Your task to perform on an android device: set default search engine in the chrome app Image 0: 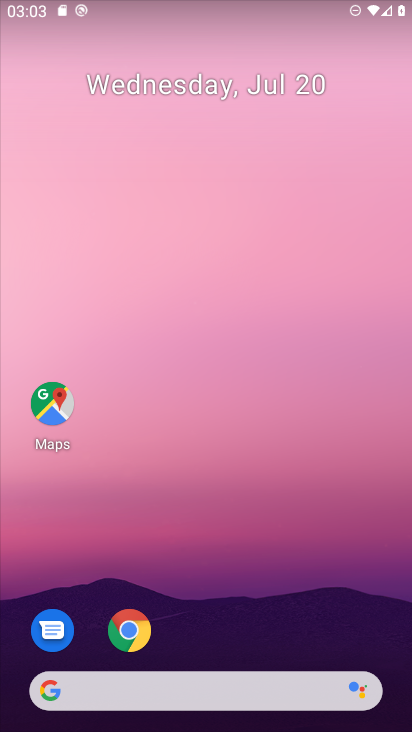
Step 0: drag from (374, 613) to (395, 134)
Your task to perform on an android device: set default search engine in the chrome app Image 1: 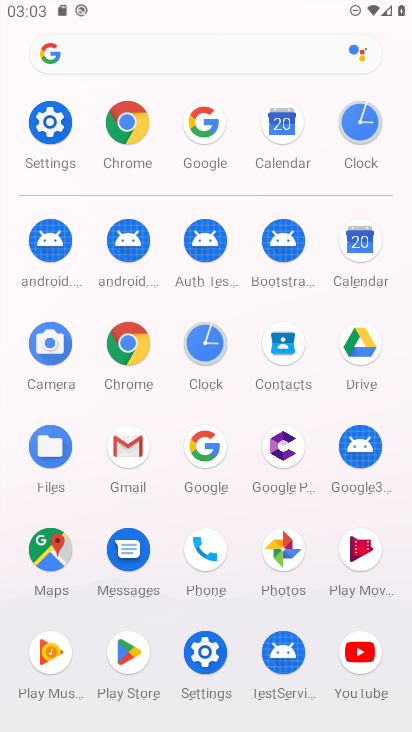
Step 1: click (134, 345)
Your task to perform on an android device: set default search engine in the chrome app Image 2: 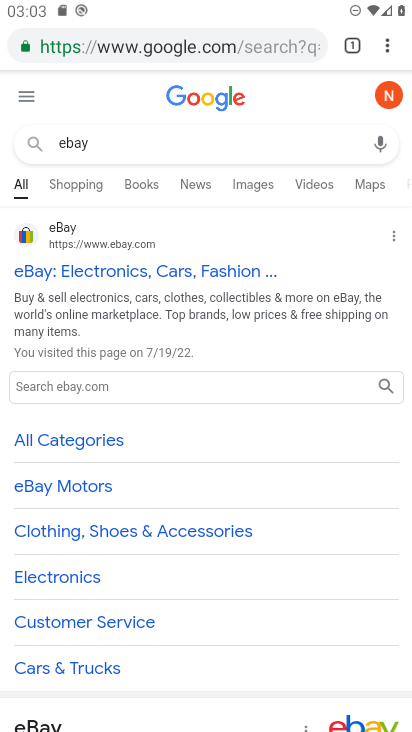
Step 2: click (388, 50)
Your task to perform on an android device: set default search engine in the chrome app Image 3: 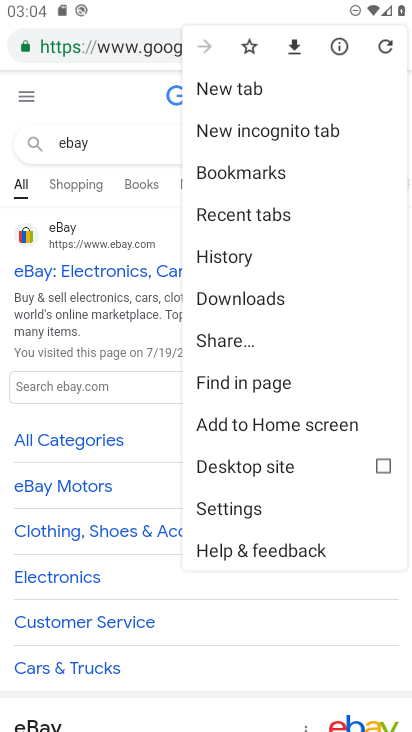
Step 3: click (299, 509)
Your task to perform on an android device: set default search engine in the chrome app Image 4: 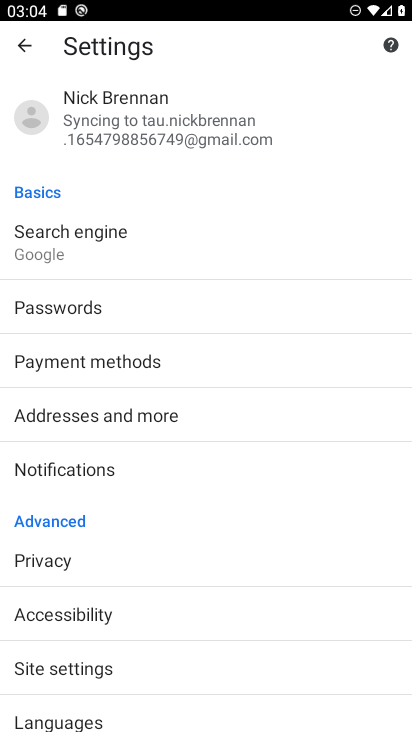
Step 4: drag from (299, 509) to (307, 407)
Your task to perform on an android device: set default search engine in the chrome app Image 5: 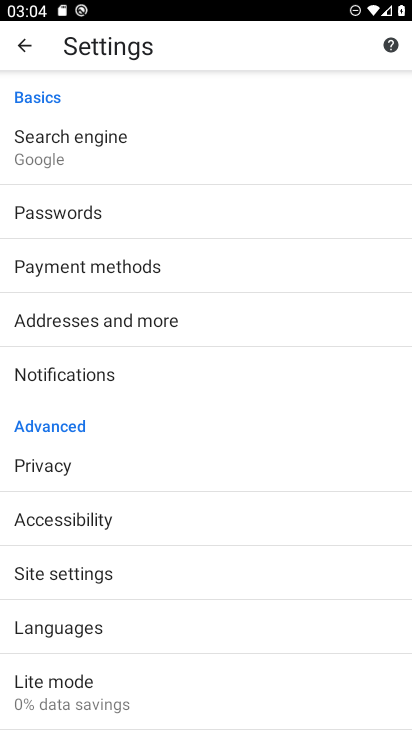
Step 5: drag from (296, 512) to (302, 415)
Your task to perform on an android device: set default search engine in the chrome app Image 6: 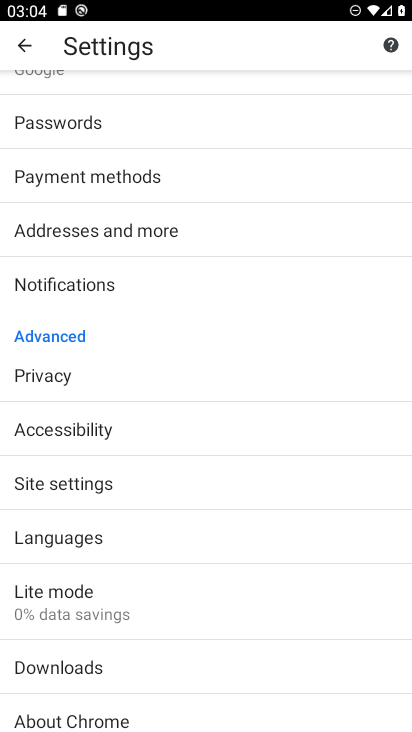
Step 6: drag from (314, 534) to (317, 428)
Your task to perform on an android device: set default search engine in the chrome app Image 7: 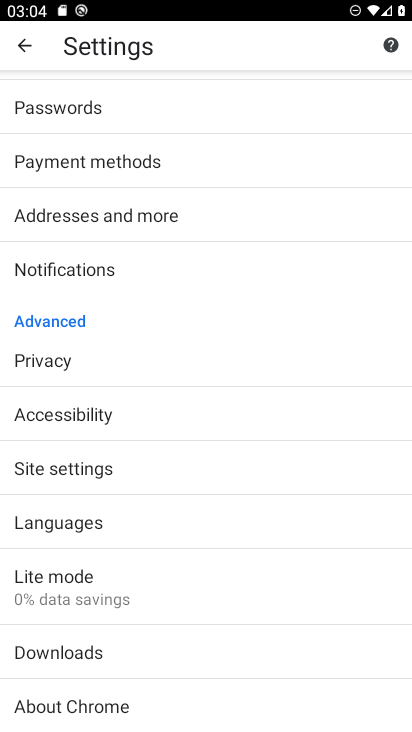
Step 7: drag from (299, 336) to (296, 424)
Your task to perform on an android device: set default search engine in the chrome app Image 8: 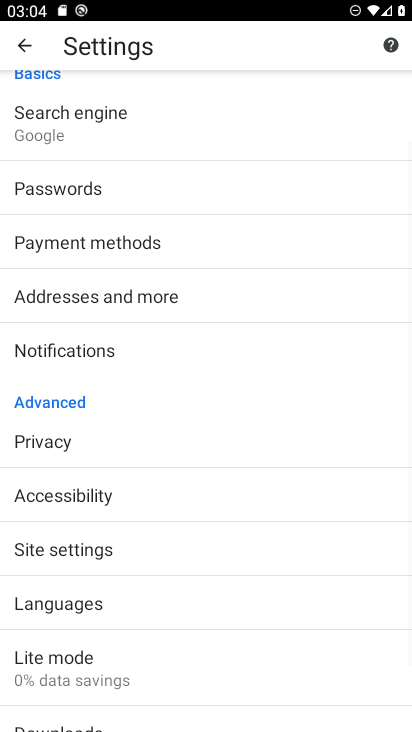
Step 8: drag from (291, 280) to (297, 405)
Your task to perform on an android device: set default search engine in the chrome app Image 9: 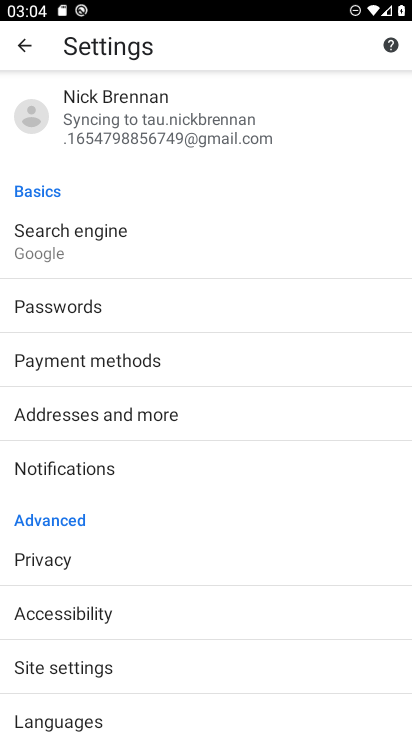
Step 9: click (228, 244)
Your task to perform on an android device: set default search engine in the chrome app Image 10: 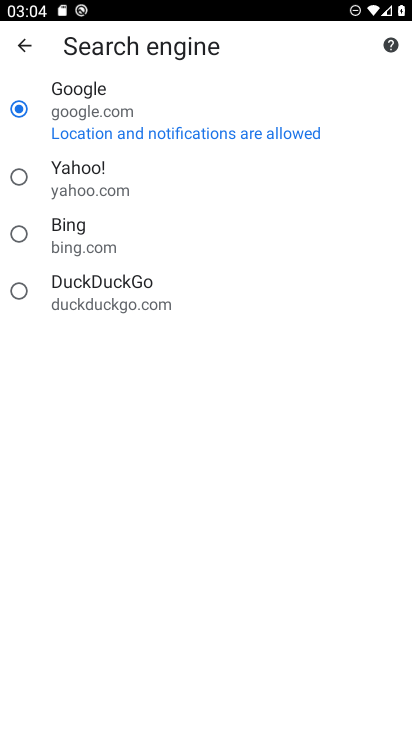
Step 10: click (126, 253)
Your task to perform on an android device: set default search engine in the chrome app Image 11: 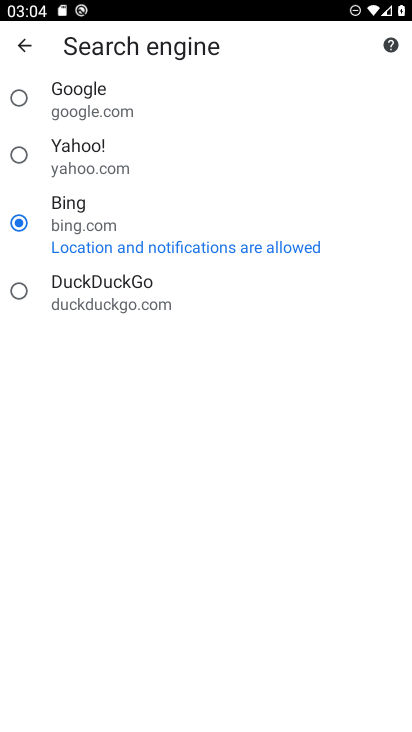
Step 11: task complete